Your task to perform on an android device: change the clock display to digital Image 0: 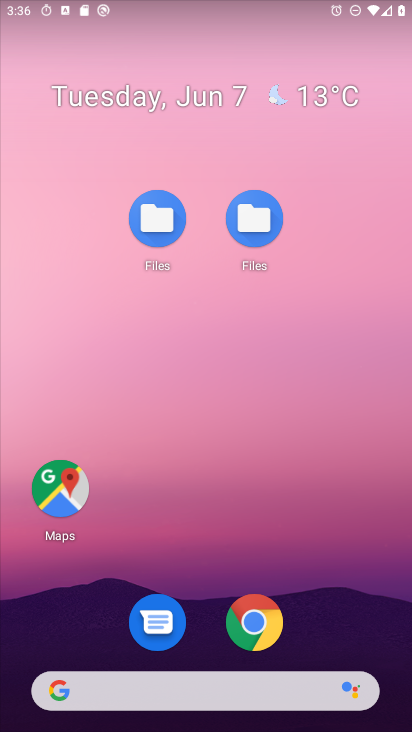
Step 0: drag from (347, 595) to (333, 167)
Your task to perform on an android device: change the clock display to digital Image 1: 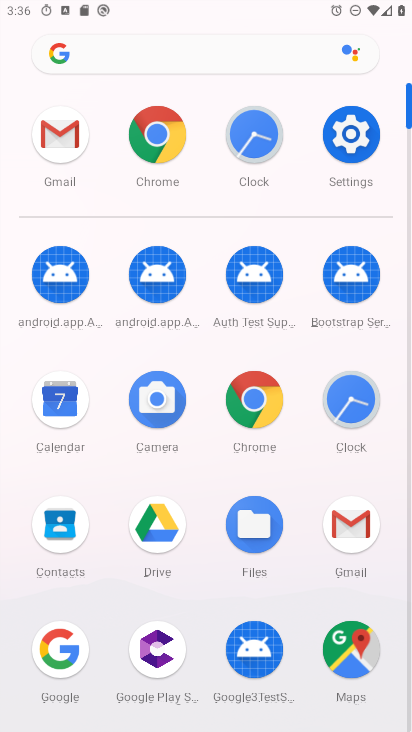
Step 1: click (252, 133)
Your task to perform on an android device: change the clock display to digital Image 2: 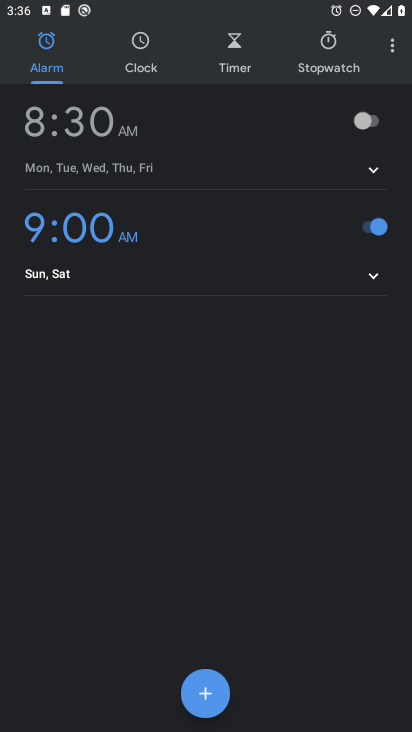
Step 2: click (391, 46)
Your task to perform on an android device: change the clock display to digital Image 3: 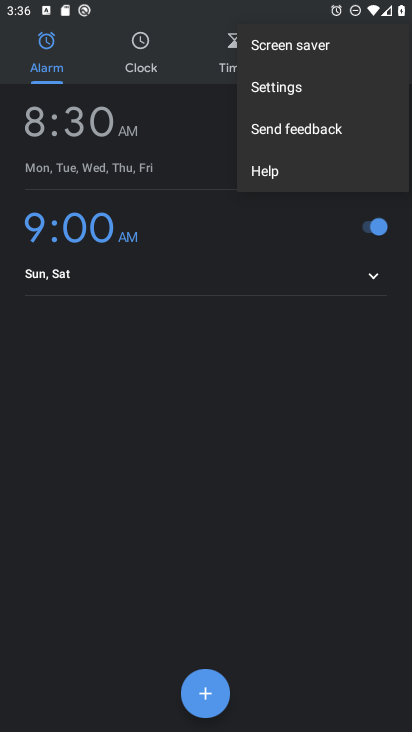
Step 3: click (316, 79)
Your task to perform on an android device: change the clock display to digital Image 4: 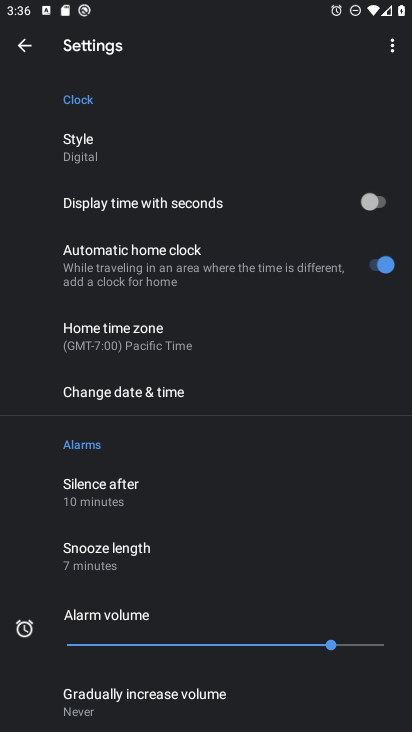
Step 4: click (144, 159)
Your task to perform on an android device: change the clock display to digital Image 5: 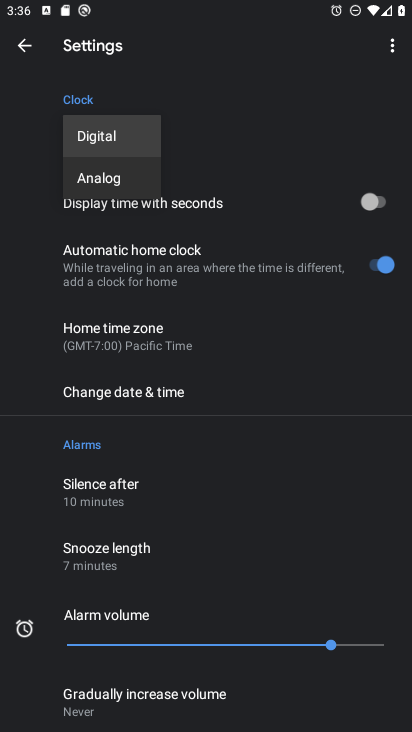
Step 5: click (119, 140)
Your task to perform on an android device: change the clock display to digital Image 6: 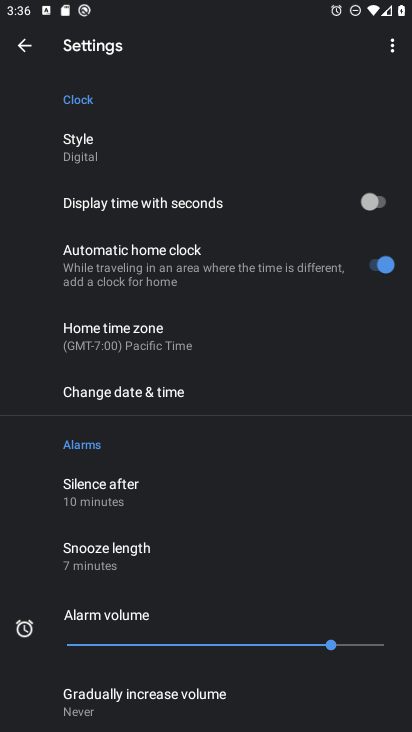
Step 6: task complete